Your task to perform on an android device: read, delete, or share a saved page in the chrome app Image 0: 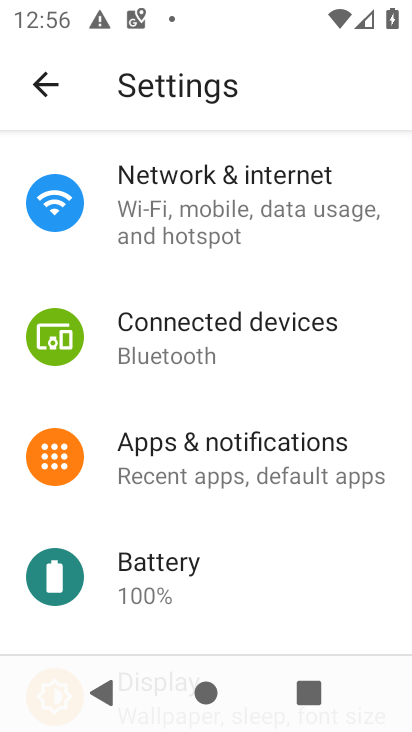
Step 0: press home button
Your task to perform on an android device: read, delete, or share a saved page in the chrome app Image 1: 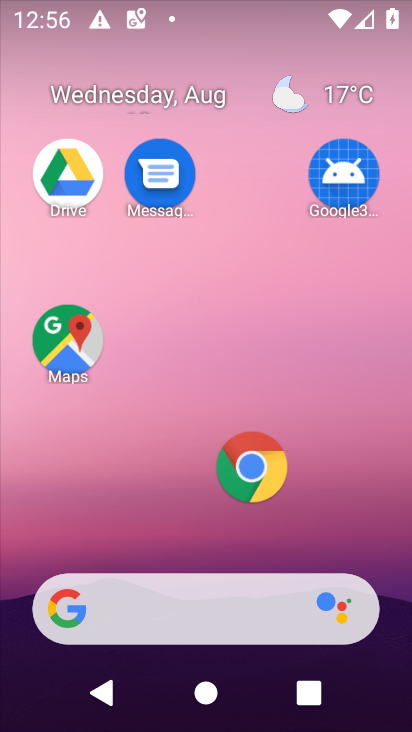
Step 1: drag from (141, 547) to (191, 155)
Your task to perform on an android device: read, delete, or share a saved page in the chrome app Image 2: 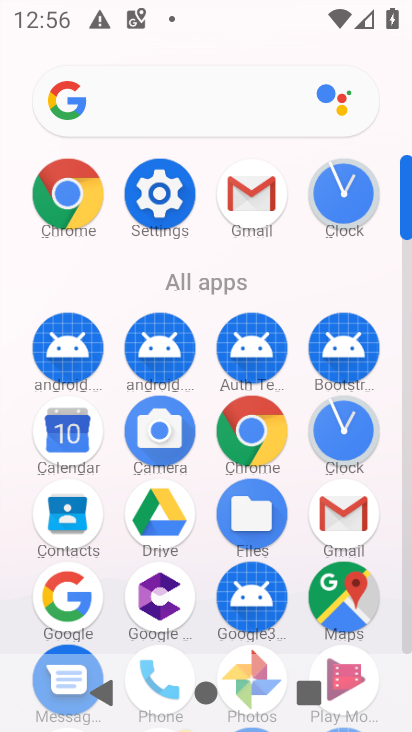
Step 2: click (266, 449)
Your task to perform on an android device: read, delete, or share a saved page in the chrome app Image 3: 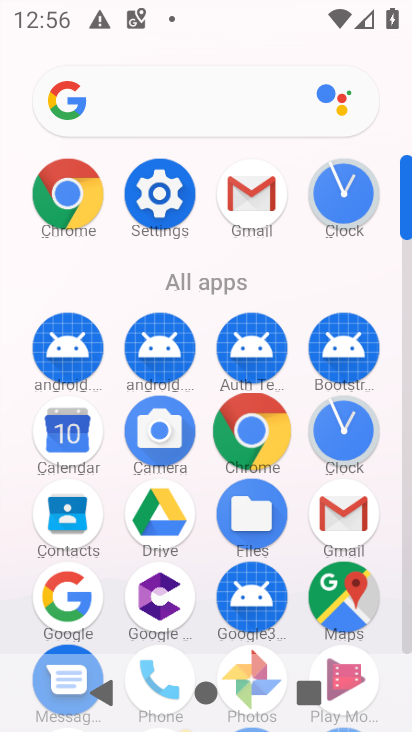
Step 3: click (257, 459)
Your task to perform on an android device: read, delete, or share a saved page in the chrome app Image 4: 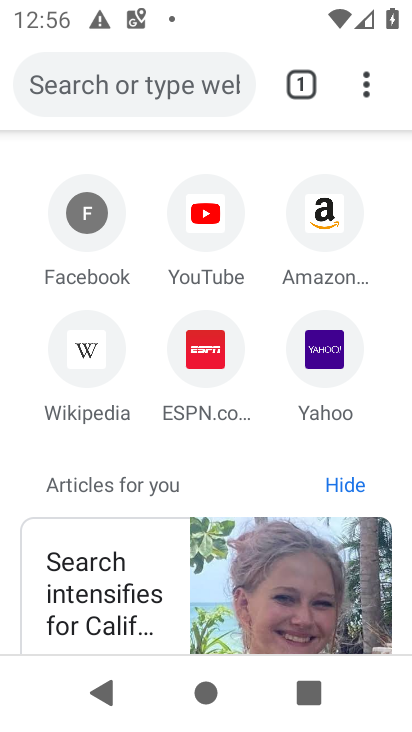
Step 4: click (79, 212)
Your task to perform on an android device: read, delete, or share a saved page in the chrome app Image 5: 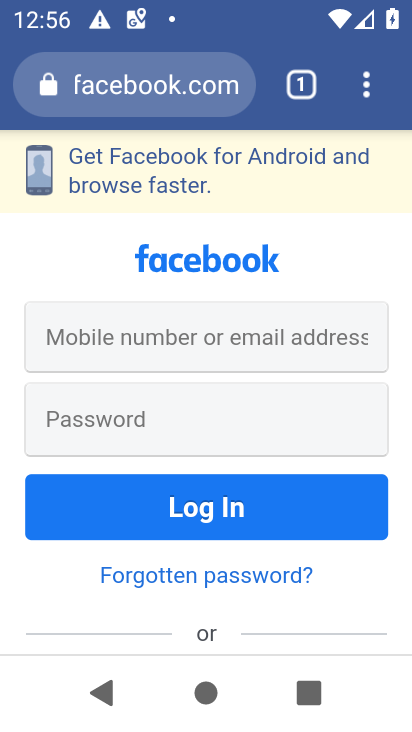
Step 5: click (368, 70)
Your task to perform on an android device: read, delete, or share a saved page in the chrome app Image 6: 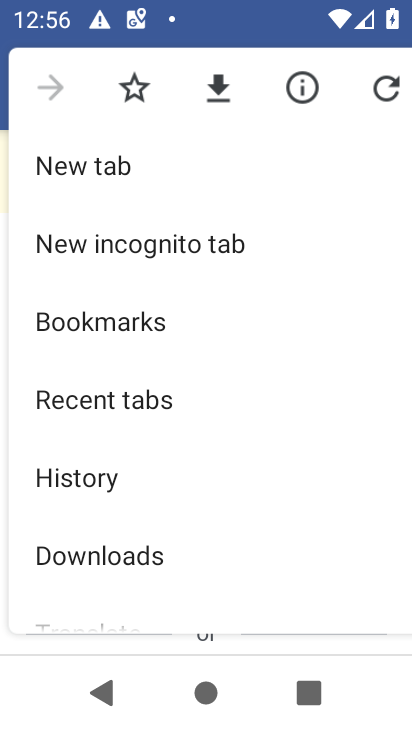
Step 6: click (379, 84)
Your task to perform on an android device: read, delete, or share a saved page in the chrome app Image 7: 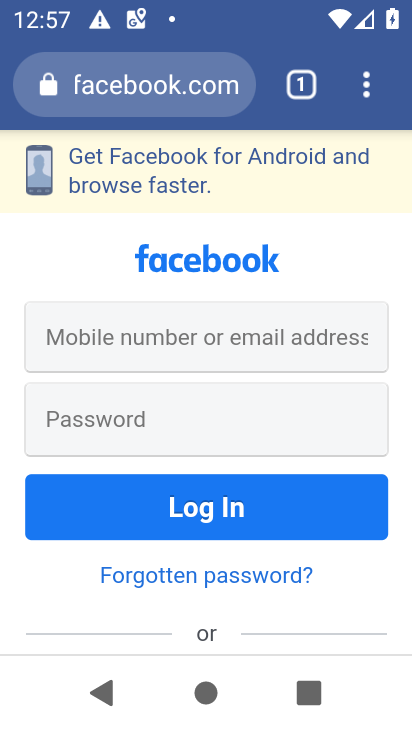
Step 7: click (389, 77)
Your task to perform on an android device: read, delete, or share a saved page in the chrome app Image 8: 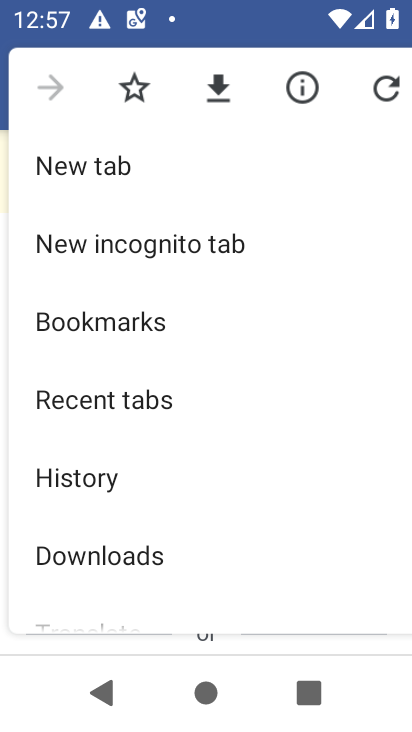
Step 8: click (186, 553)
Your task to perform on an android device: read, delete, or share a saved page in the chrome app Image 9: 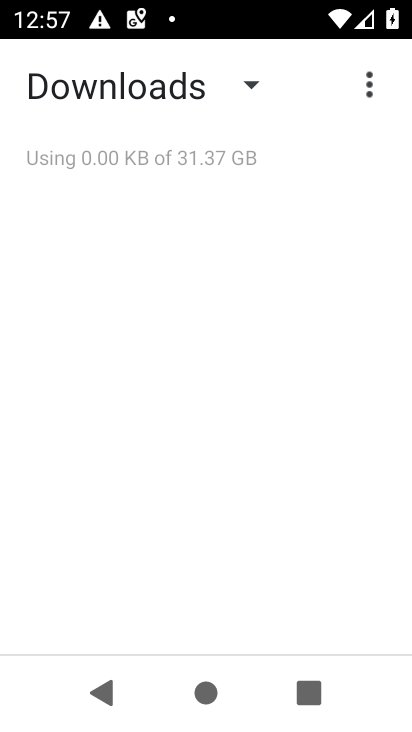
Step 9: task complete